Your task to perform on an android device: Open Google Chrome and click the shortcut for Amazon.com Image 0: 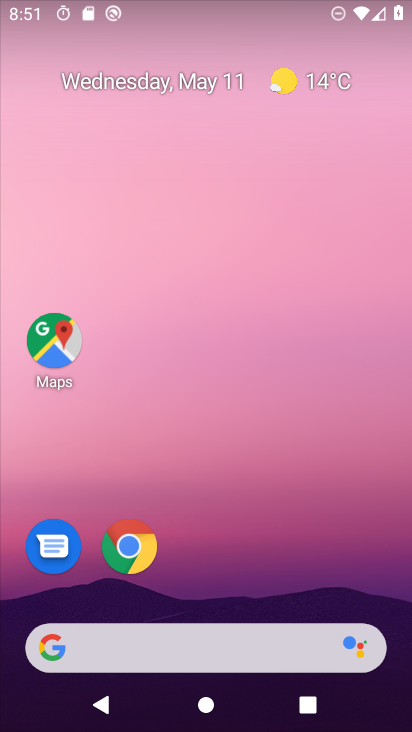
Step 0: click (151, 569)
Your task to perform on an android device: Open Google Chrome and click the shortcut for Amazon.com Image 1: 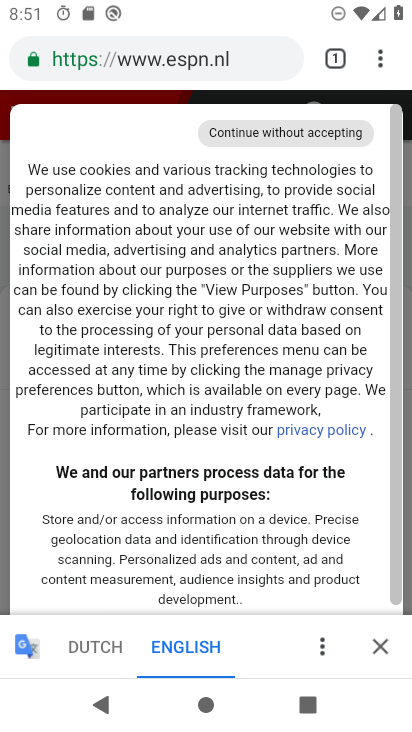
Step 1: click (334, 59)
Your task to perform on an android device: Open Google Chrome and click the shortcut for Amazon.com Image 2: 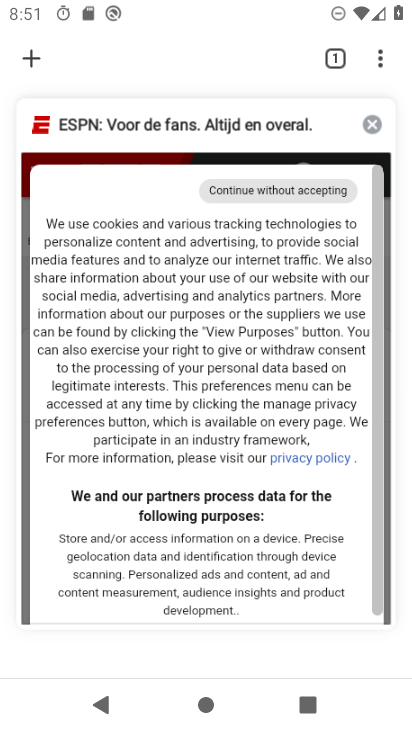
Step 2: click (31, 62)
Your task to perform on an android device: Open Google Chrome and click the shortcut for Amazon.com Image 3: 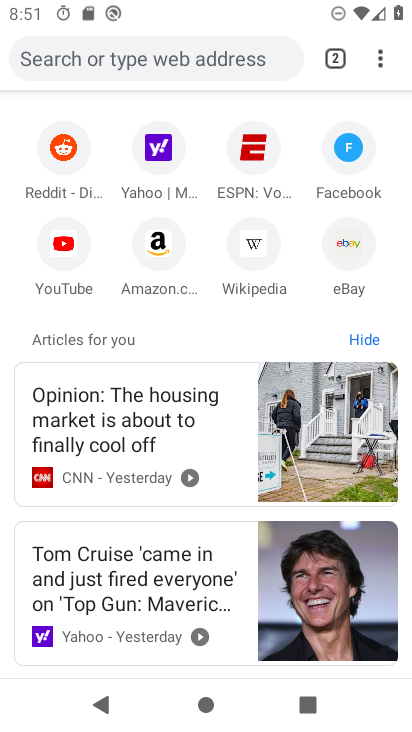
Step 3: click (158, 236)
Your task to perform on an android device: Open Google Chrome and click the shortcut for Amazon.com Image 4: 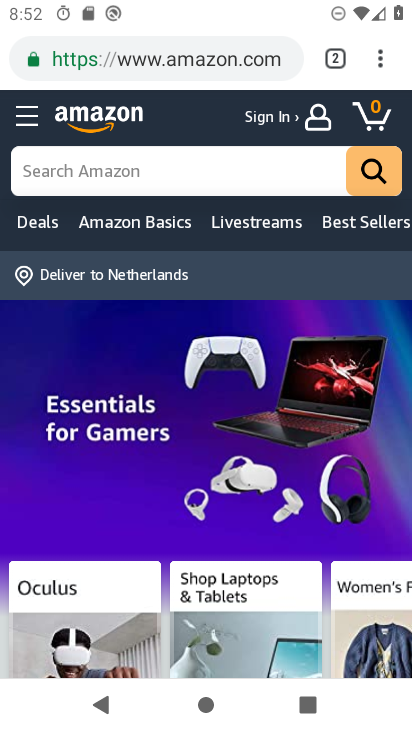
Step 4: task complete